Your task to perform on an android device: Open battery settings Image 0: 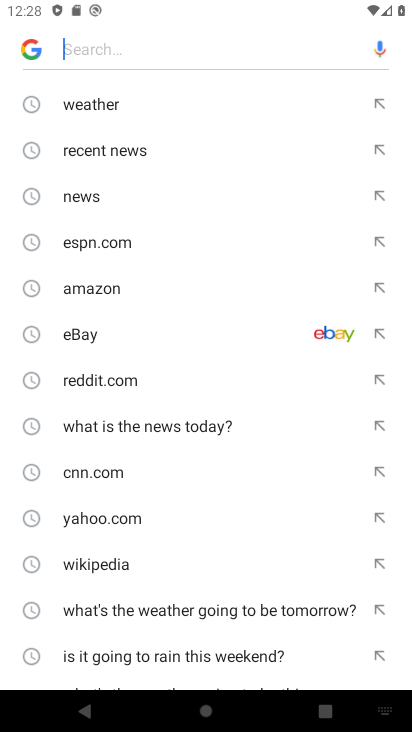
Step 0: press back button
Your task to perform on an android device: Open battery settings Image 1: 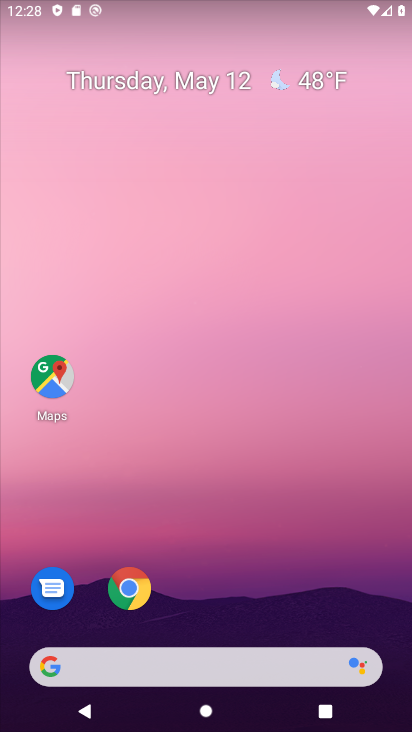
Step 1: drag from (342, 590) to (210, 313)
Your task to perform on an android device: Open battery settings Image 2: 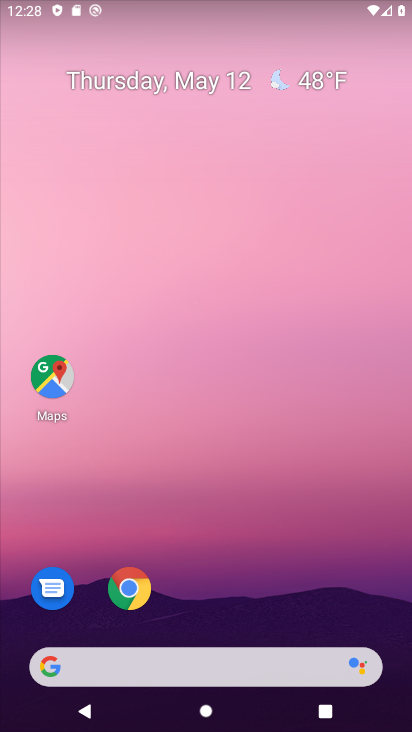
Step 2: drag from (347, 598) to (260, 205)
Your task to perform on an android device: Open battery settings Image 3: 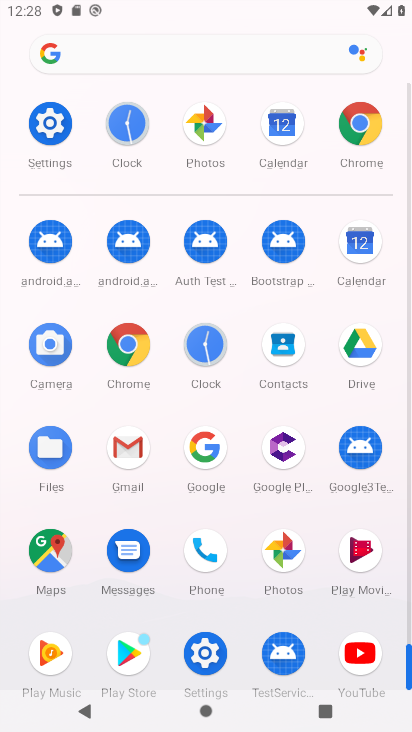
Step 3: click (62, 136)
Your task to perform on an android device: Open battery settings Image 4: 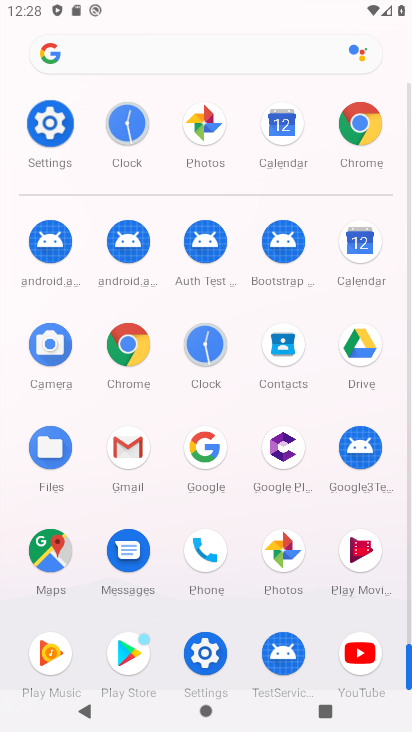
Step 4: click (62, 134)
Your task to perform on an android device: Open battery settings Image 5: 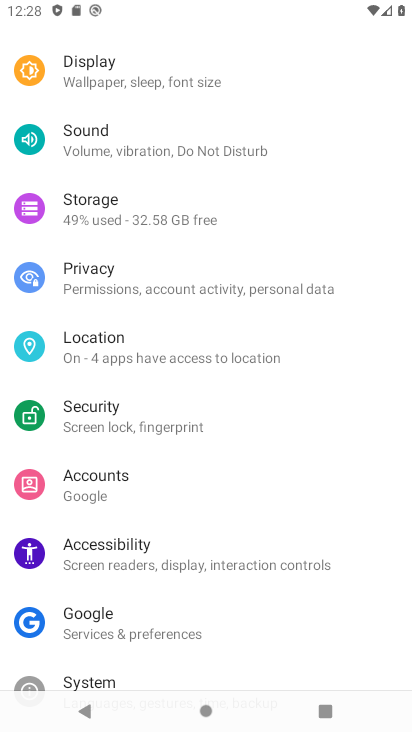
Step 5: click (155, 217)
Your task to perform on an android device: Open battery settings Image 6: 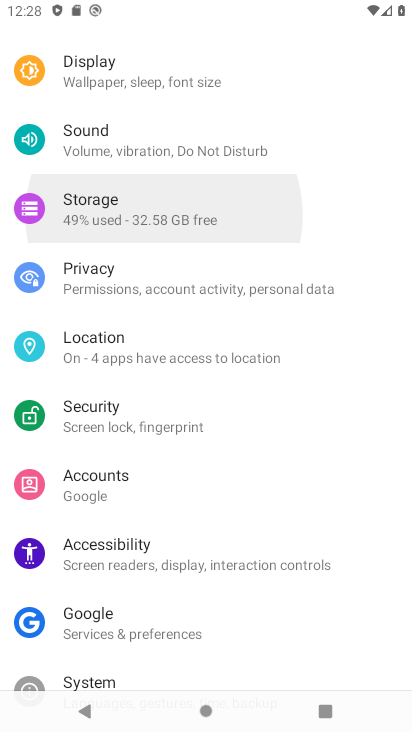
Step 6: click (155, 219)
Your task to perform on an android device: Open battery settings Image 7: 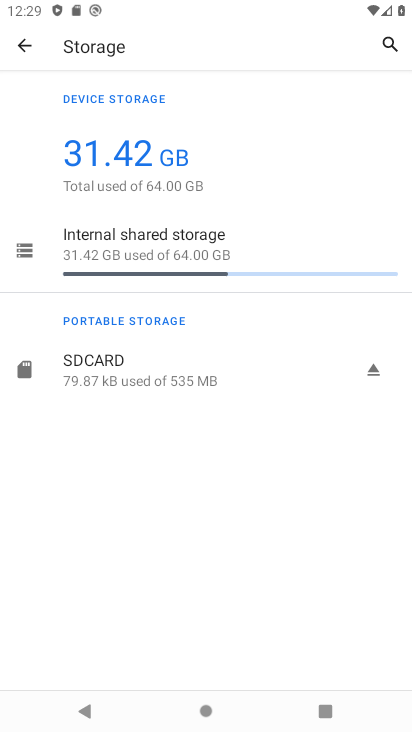
Step 7: click (37, 54)
Your task to perform on an android device: Open battery settings Image 8: 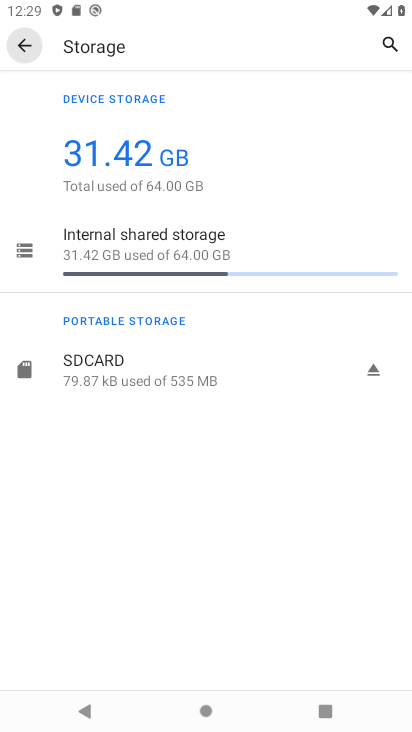
Step 8: click (37, 54)
Your task to perform on an android device: Open battery settings Image 9: 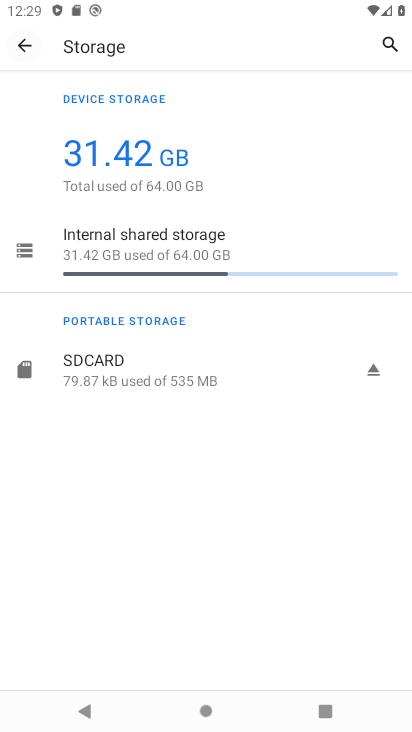
Step 9: click (36, 53)
Your task to perform on an android device: Open battery settings Image 10: 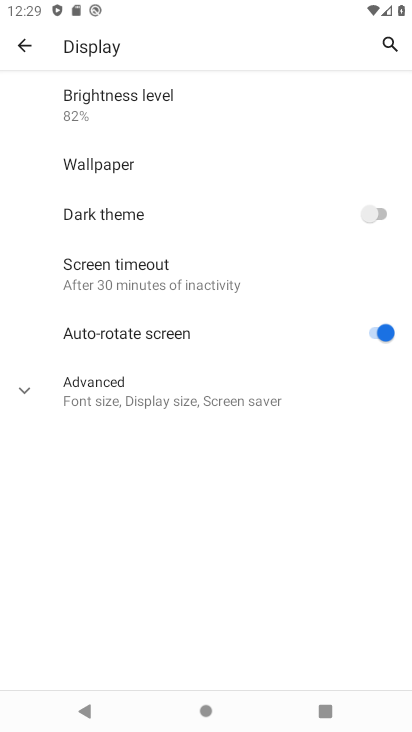
Step 10: click (22, 53)
Your task to perform on an android device: Open battery settings Image 11: 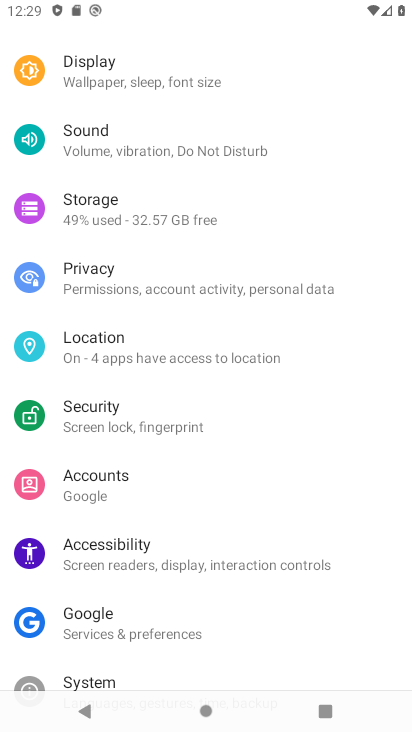
Step 11: drag from (146, 227) to (193, 434)
Your task to perform on an android device: Open battery settings Image 12: 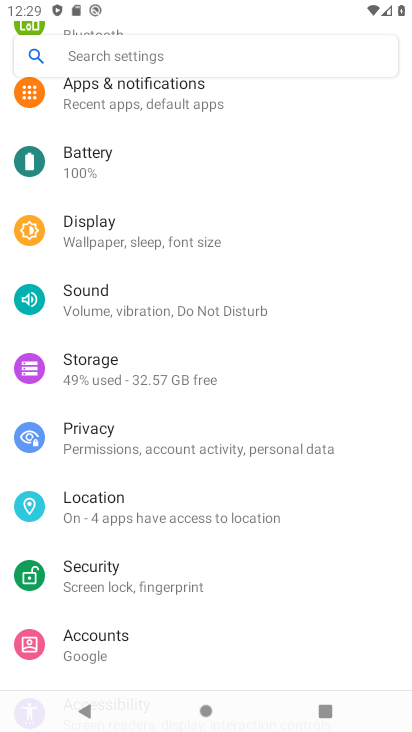
Step 12: click (69, 157)
Your task to perform on an android device: Open battery settings Image 13: 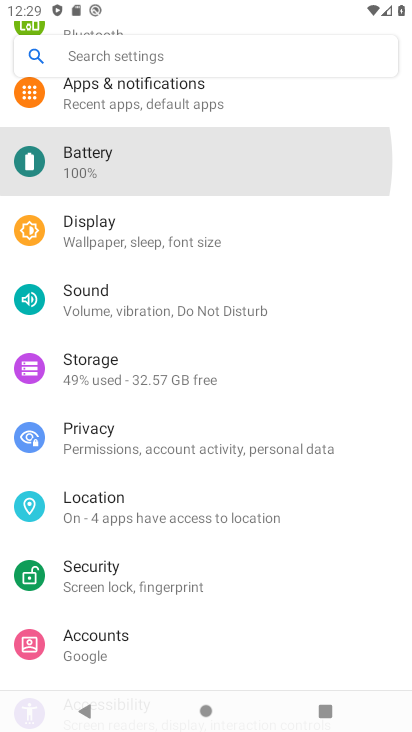
Step 13: click (69, 158)
Your task to perform on an android device: Open battery settings Image 14: 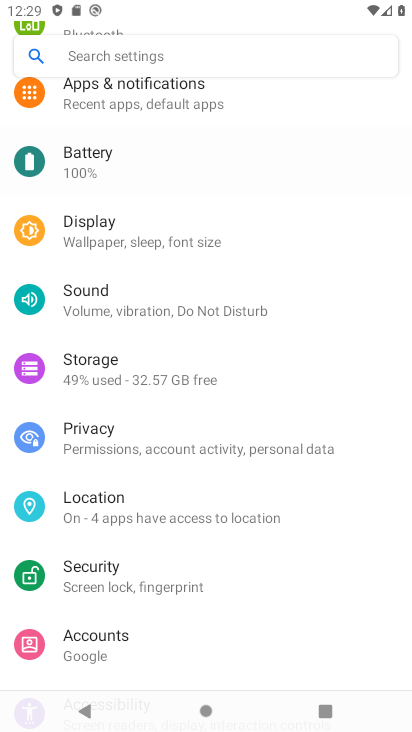
Step 14: click (69, 158)
Your task to perform on an android device: Open battery settings Image 15: 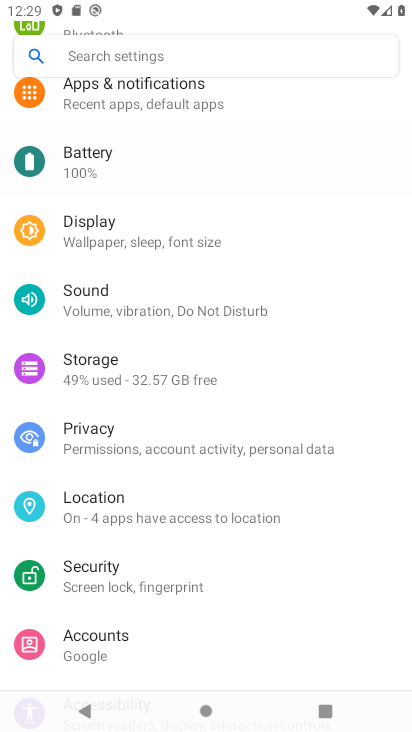
Step 15: click (69, 158)
Your task to perform on an android device: Open battery settings Image 16: 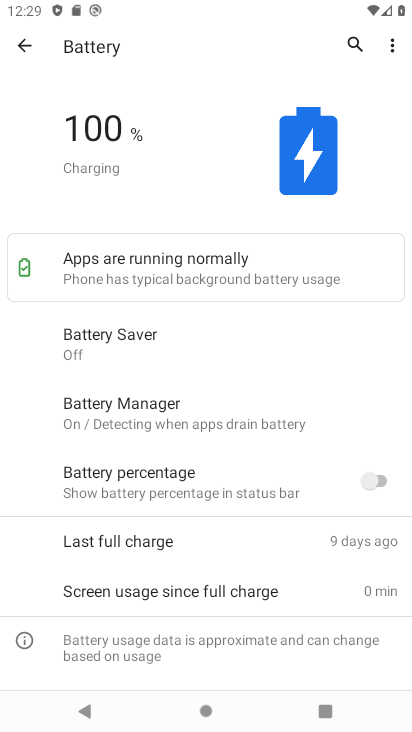
Step 16: task complete